Your task to perform on an android device: turn off wifi Image 0: 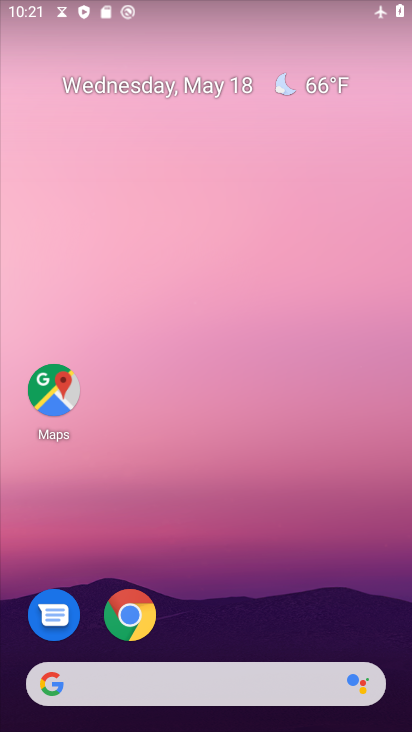
Step 0: drag from (313, 579) to (215, 11)
Your task to perform on an android device: turn off wifi Image 1: 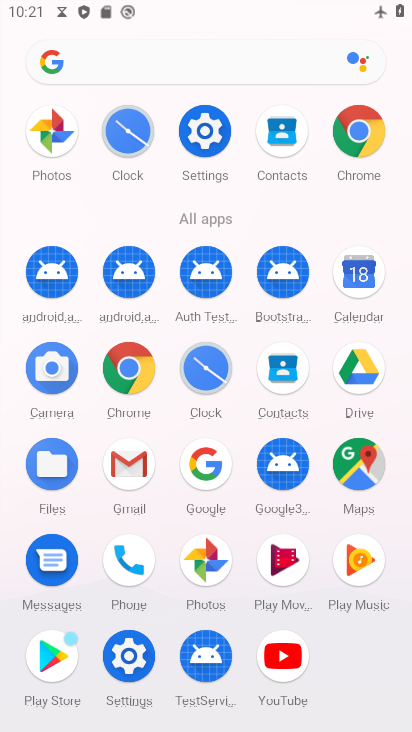
Step 1: click (204, 127)
Your task to perform on an android device: turn off wifi Image 2: 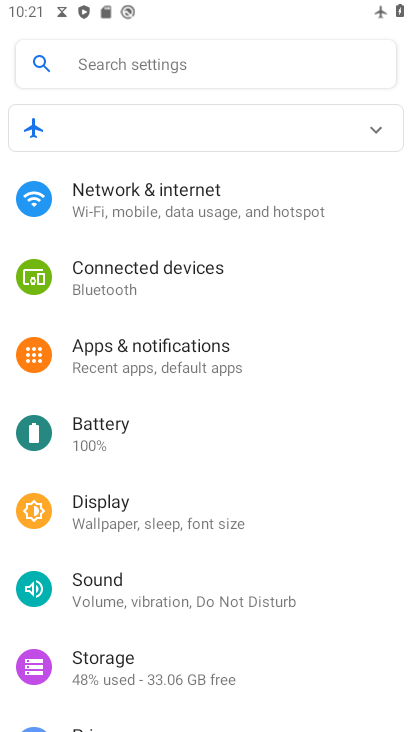
Step 2: click (193, 190)
Your task to perform on an android device: turn off wifi Image 3: 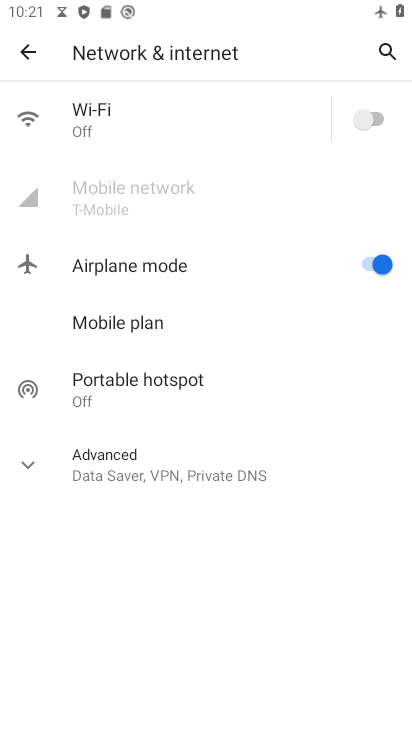
Step 3: click (37, 470)
Your task to perform on an android device: turn off wifi Image 4: 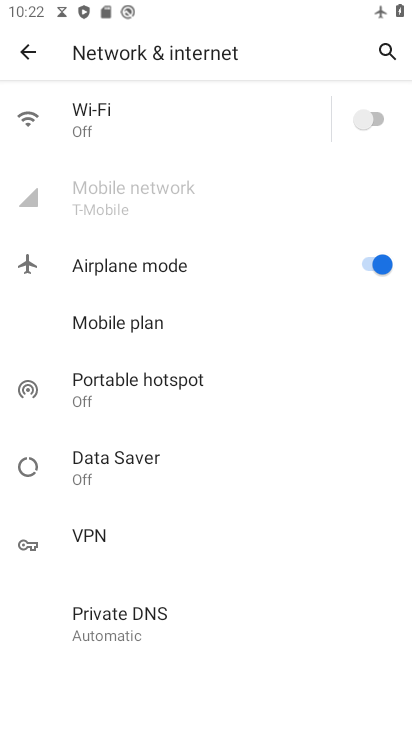
Step 4: task complete